Your task to perform on an android device: check the backup settings in the google photos Image 0: 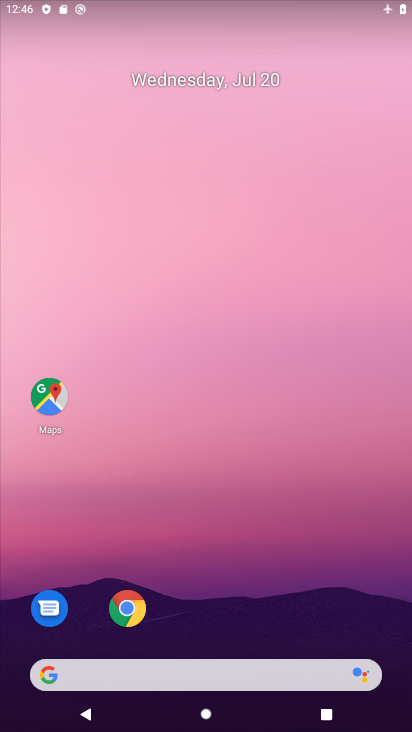
Step 0: drag from (314, 664) to (255, 77)
Your task to perform on an android device: check the backup settings in the google photos Image 1: 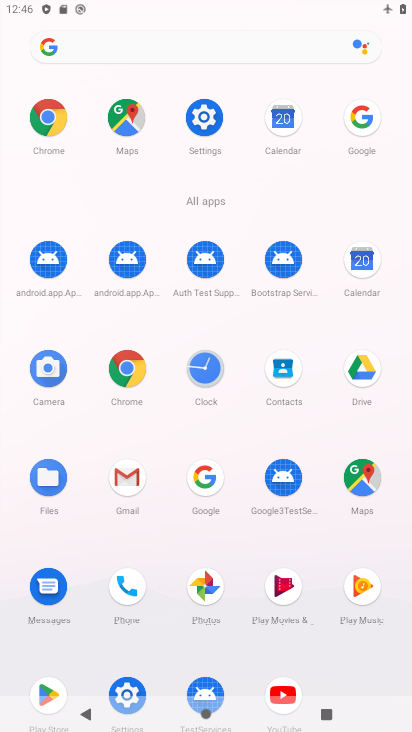
Step 1: click (209, 588)
Your task to perform on an android device: check the backup settings in the google photos Image 2: 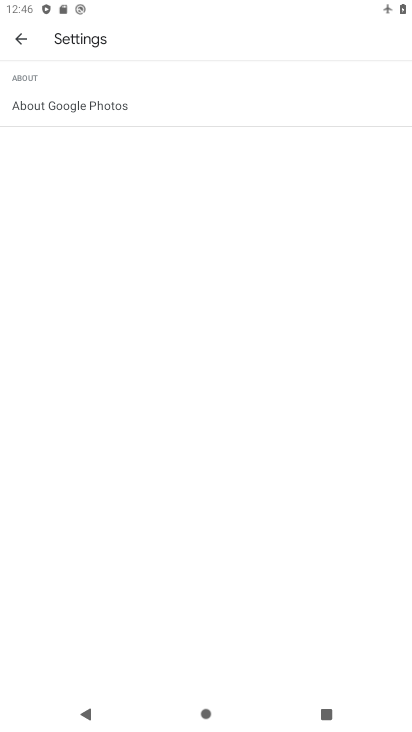
Step 2: click (15, 37)
Your task to perform on an android device: check the backup settings in the google photos Image 3: 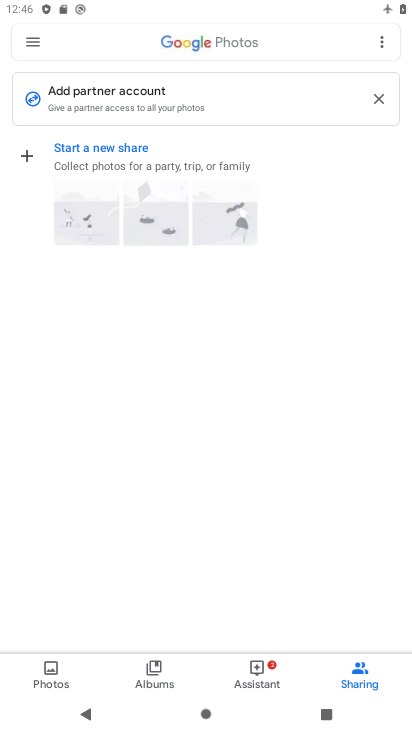
Step 3: click (29, 41)
Your task to perform on an android device: check the backup settings in the google photos Image 4: 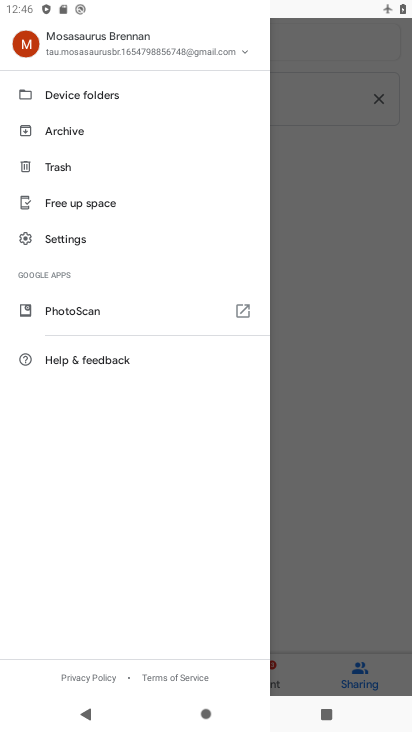
Step 4: click (50, 236)
Your task to perform on an android device: check the backup settings in the google photos Image 5: 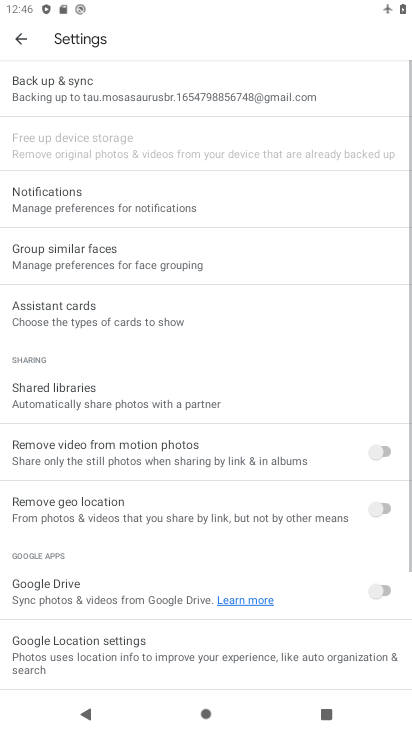
Step 5: click (90, 79)
Your task to perform on an android device: check the backup settings in the google photos Image 6: 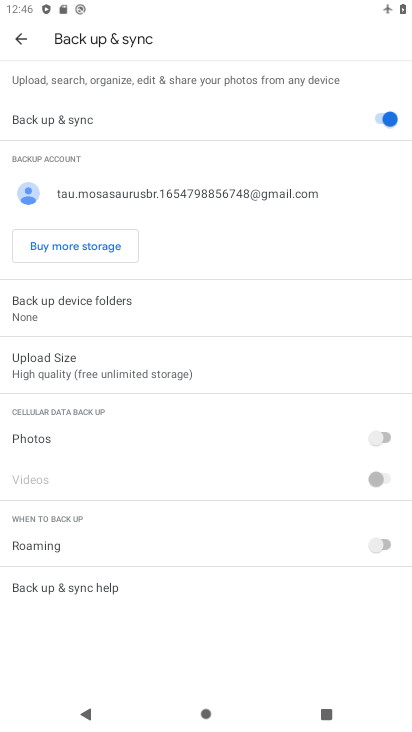
Step 6: task complete